Your task to perform on an android device: Open calendar and show me the fourth week of next month Image 0: 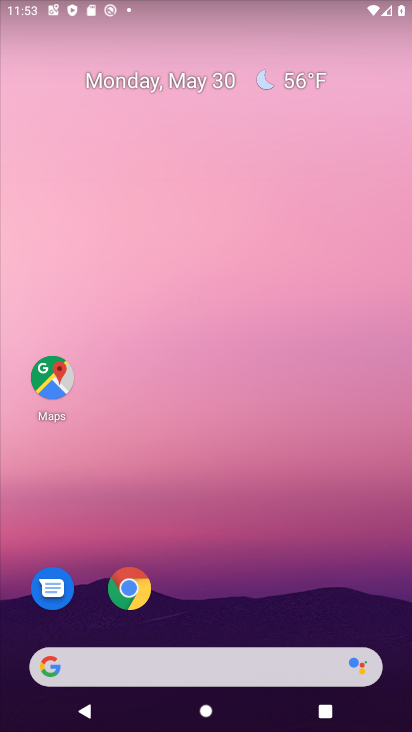
Step 0: drag from (215, 599) to (260, 81)
Your task to perform on an android device: Open calendar and show me the fourth week of next month Image 1: 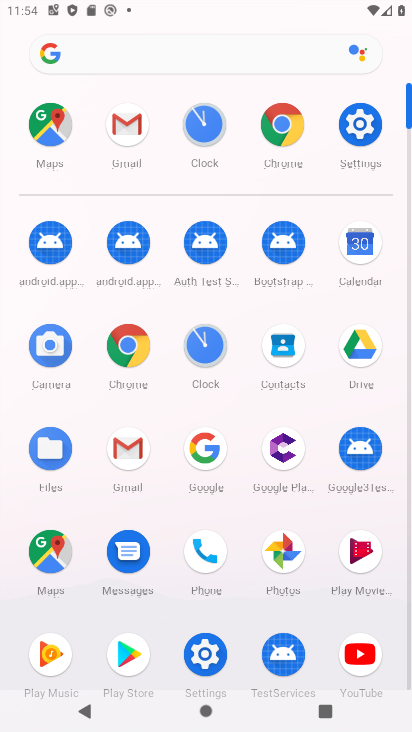
Step 1: click (369, 274)
Your task to perform on an android device: Open calendar and show me the fourth week of next month Image 2: 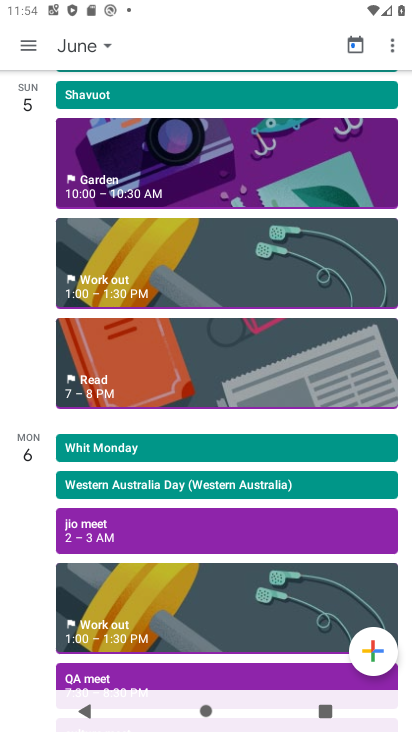
Step 2: click (36, 41)
Your task to perform on an android device: Open calendar and show me the fourth week of next month Image 3: 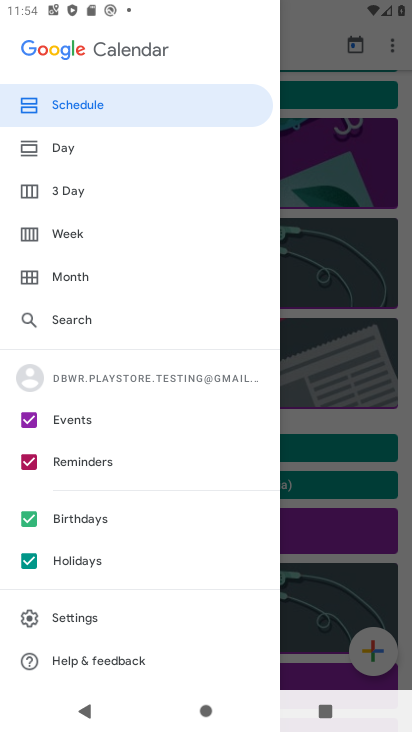
Step 3: click (77, 241)
Your task to perform on an android device: Open calendar and show me the fourth week of next month Image 4: 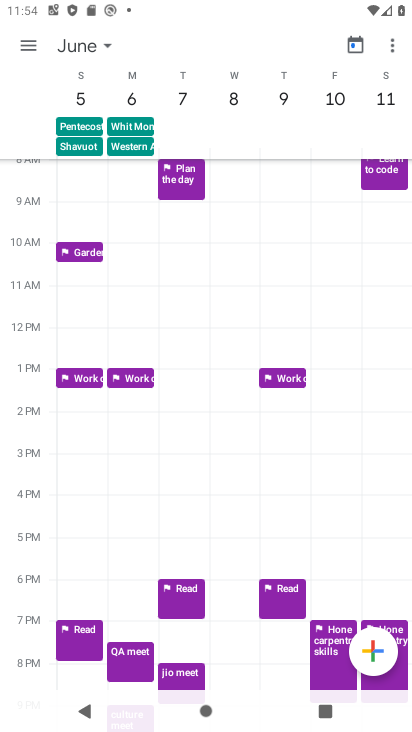
Step 4: click (95, 50)
Your task to perform on an android device: Open calendar and show me the fourth week of next month Image 5: 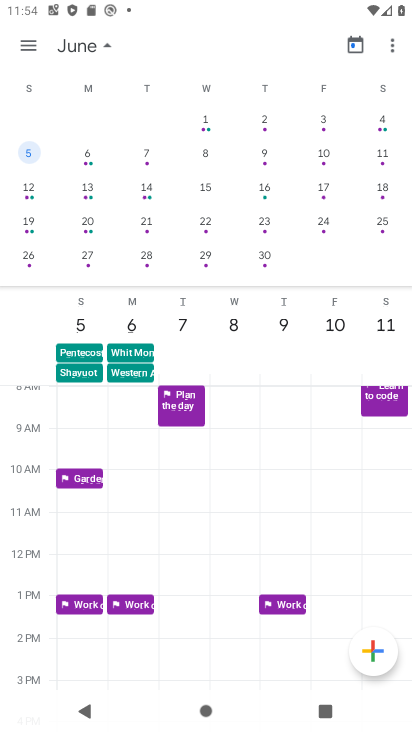
Step 5: click (31, 255)
Your task to perform on an android device: Open calendar and show me the fourth week of next month Image 6: 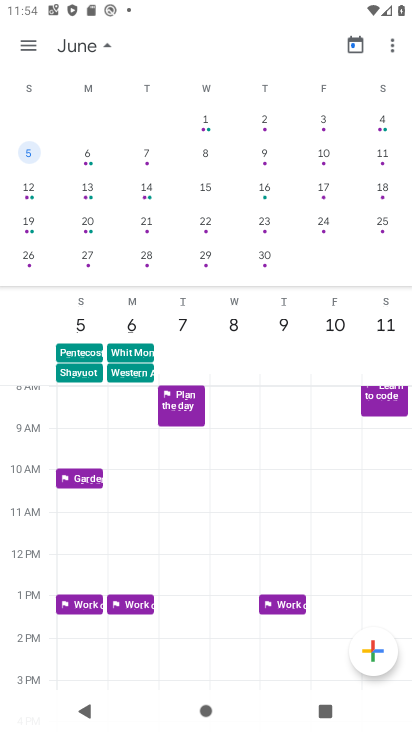
Step 6: click (26, 251)
Your task to perform on an android device: Open calendar and show me the fourth week of next month Image 7: 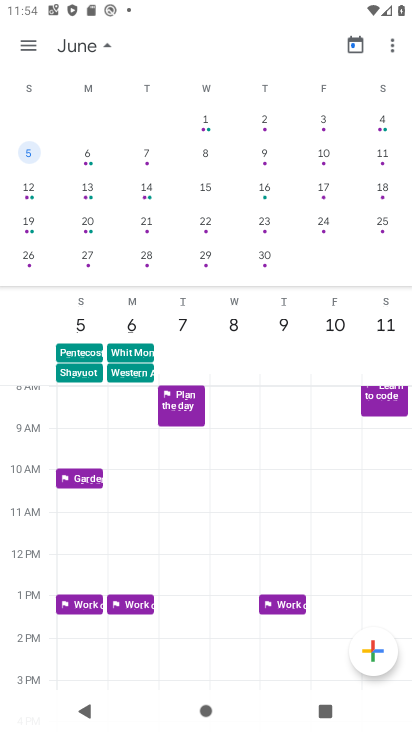
Step 7: click (26, 251)
Your task to perform on an android device: Open calendar and show me the fourth week of next month Image 8: 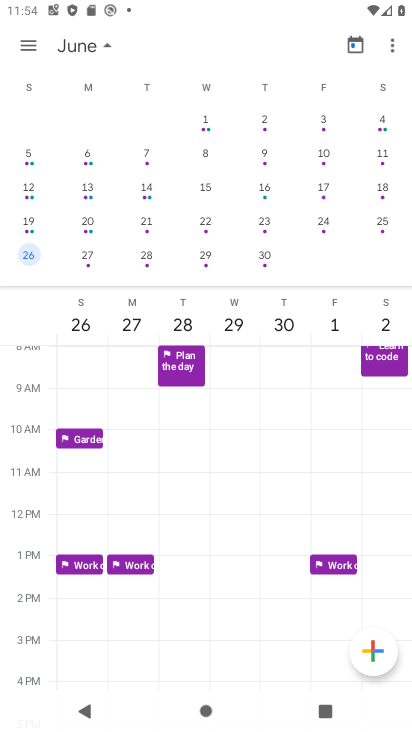
Step 8: task complete